Your task to perform on an android device: turn off airplane mode Image 0: 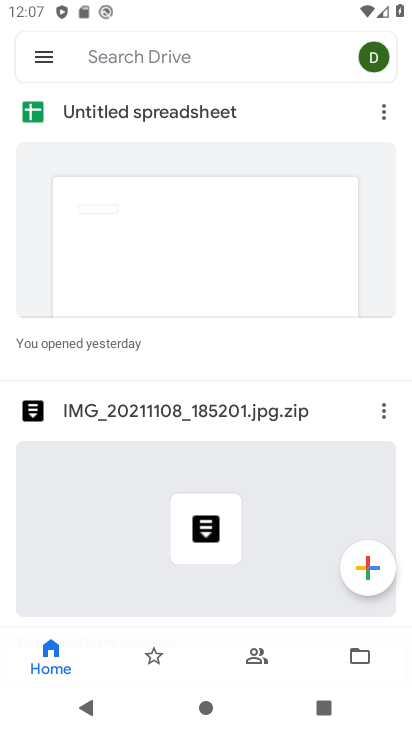
Step 0: press home button
Your task to perform on an android device: turn off airplane mode Image 1: 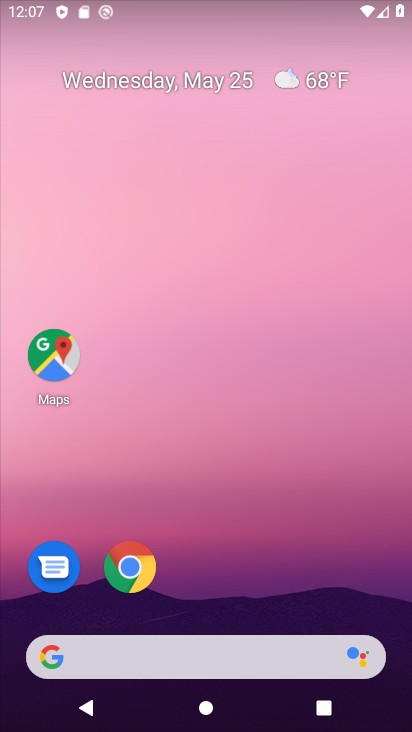
Step 1: drag from (202, 626) to (257, 160)
Your task to perform on an android device: turn off airplane mode Image 2: 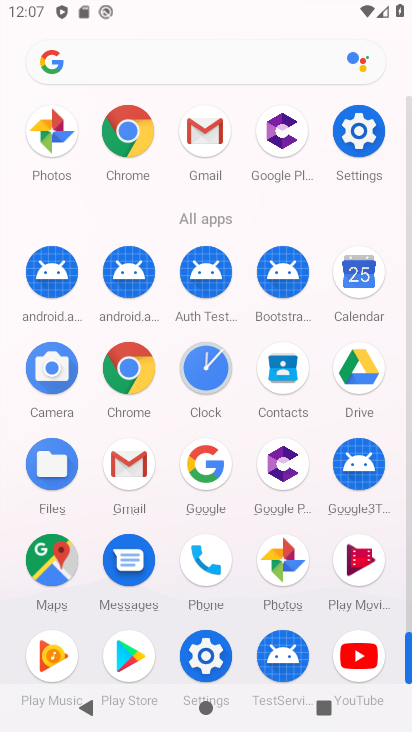
Step 2: click (366, 137)
Your task to perform on an android device: turn off airplane mode Image 3: 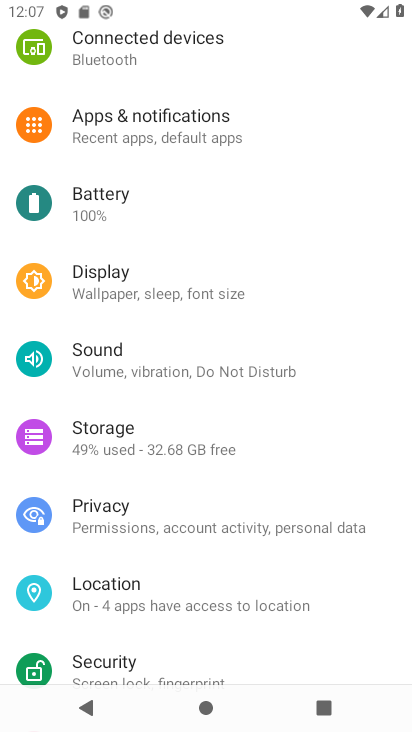
Step 3: drag from (264, 163) to (255, 615)
Your task to perform on an android device: turn off airplane mode Image 4: 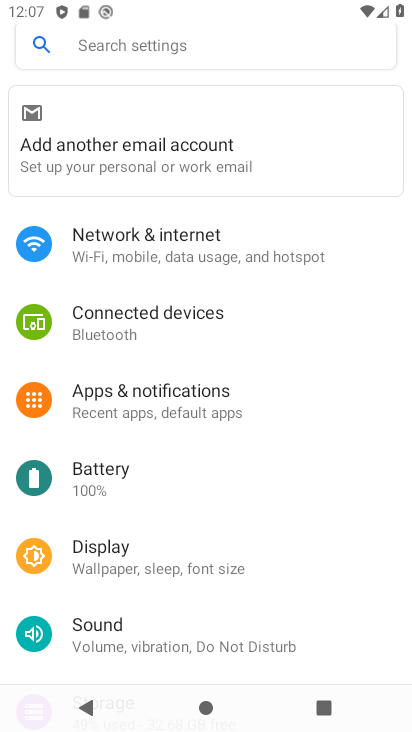
Step 4: click (245, 265)
Your task to perform on an android device: turn off airplane mode Image 5: 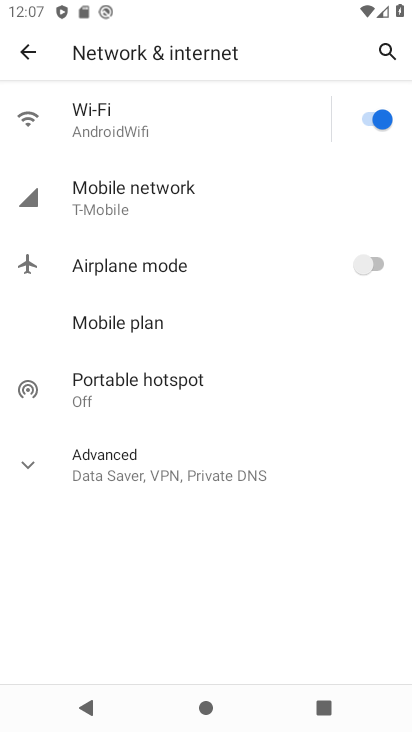
Step 5: task complete